Your task to perform on an android device: Turn on the flashlight Image 0: 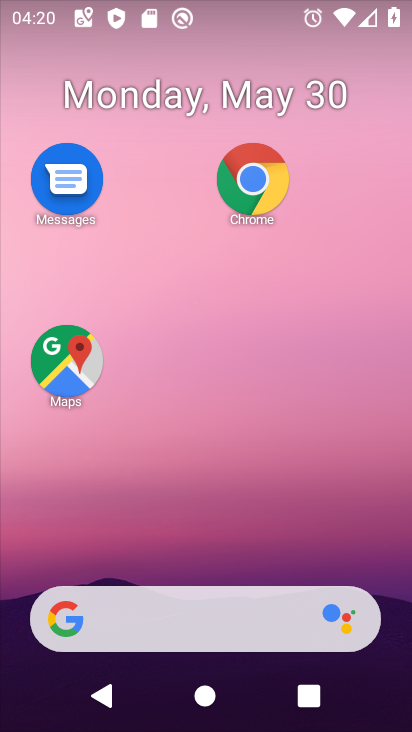
Step 0: drag from (248, 543) to (7, 355)
Your task to perform on an android device: Turn on the flashlight Image 1: 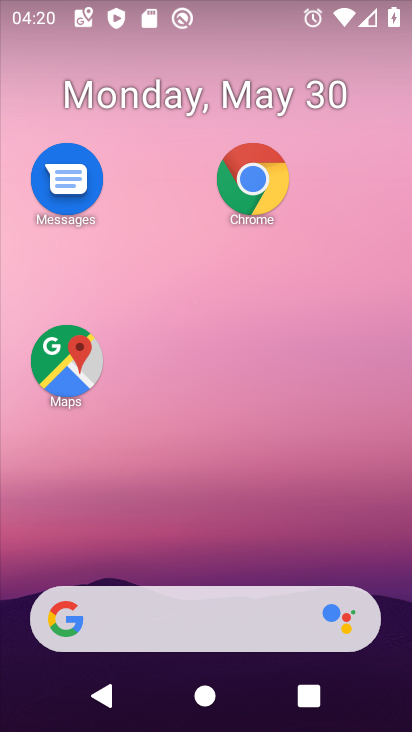
Step 1: task complete